Your task to perform on an android device: open app "Yahoo Mail" Image 0: 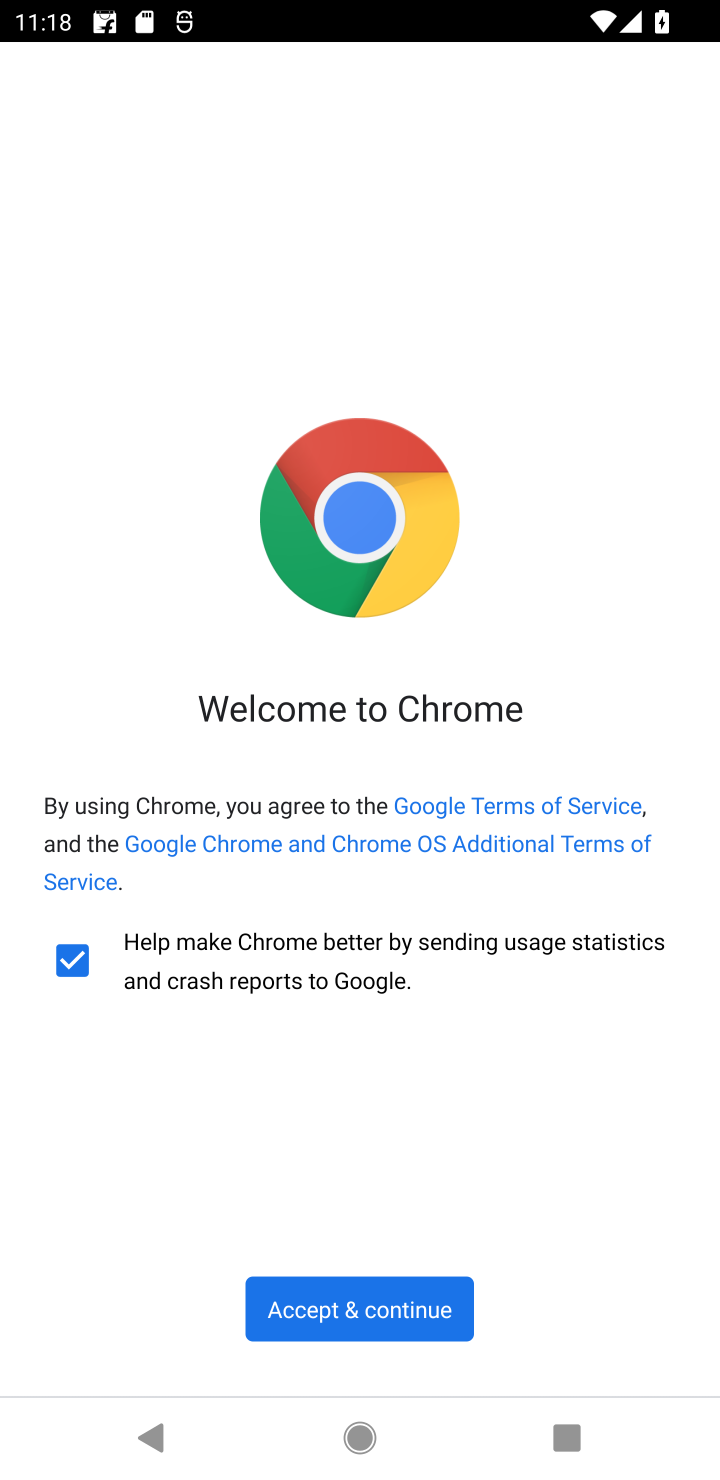
Step 0: press home button
Your task to perform on an android device: open app "Yahoo Mail" Image 1: 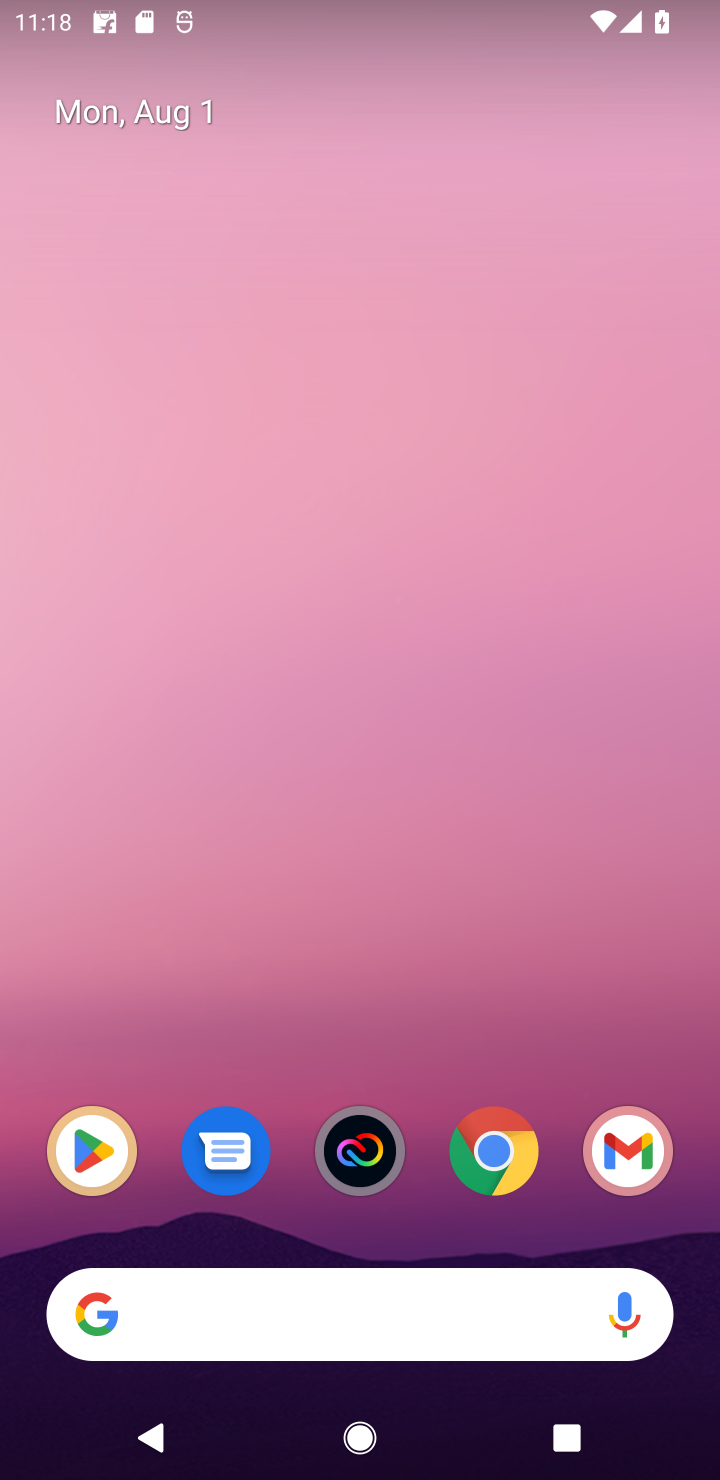
Step 1: click (67, 1128)
Your task to perform on an android device: open app "Yahoo Mail" Image 2: 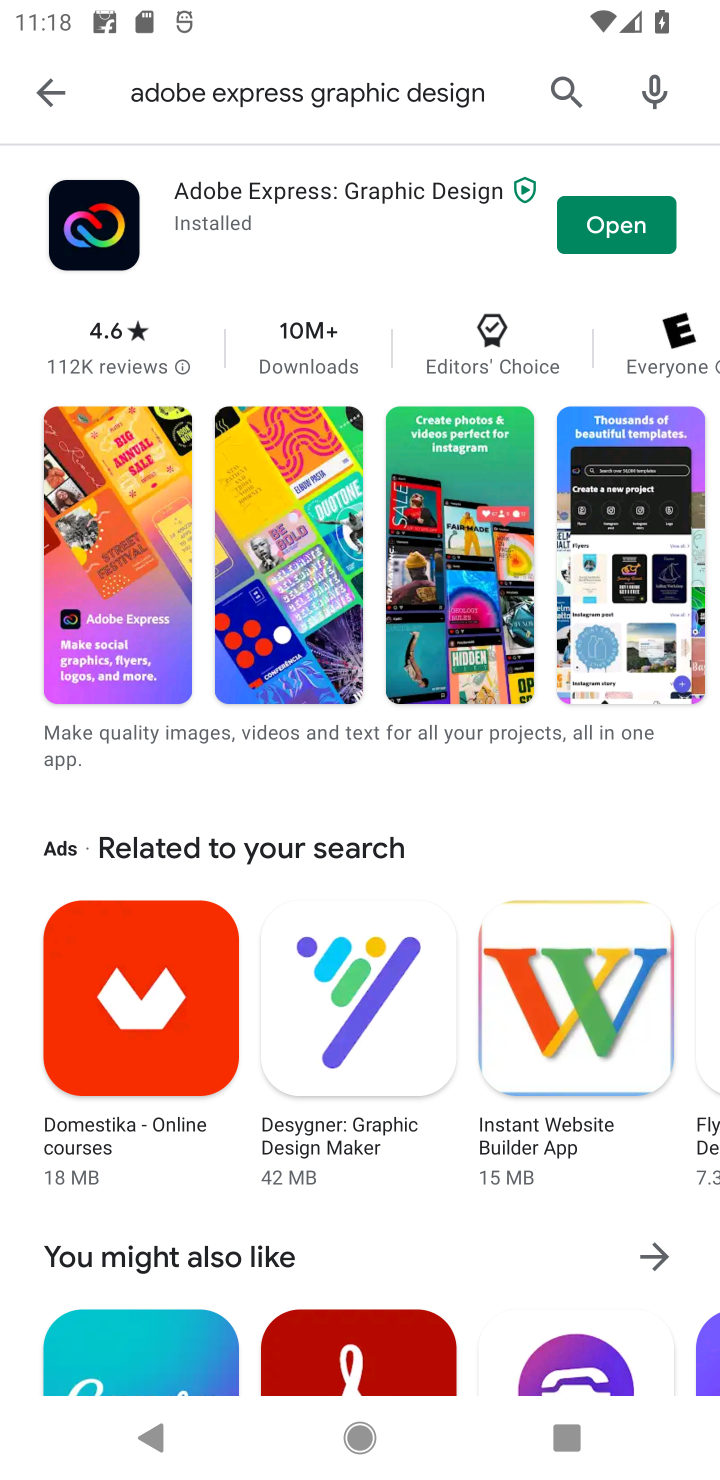
Step 2: click (573, 84)
Your task to perform on an android device: open app "Yahoo Mail" Image 3: 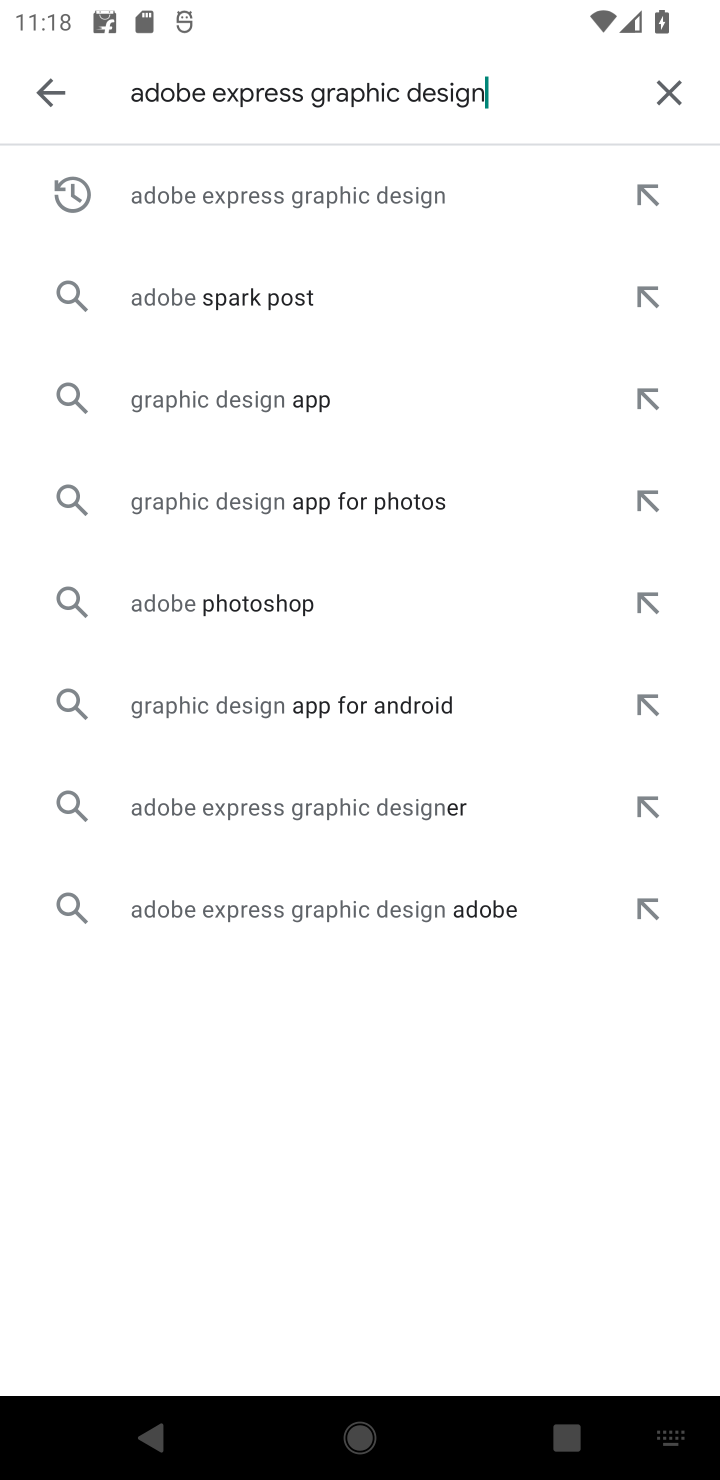
Step 3: click (661, 85)
Your task to perform on an android device: open app "Yahoo Mail" Image 4: 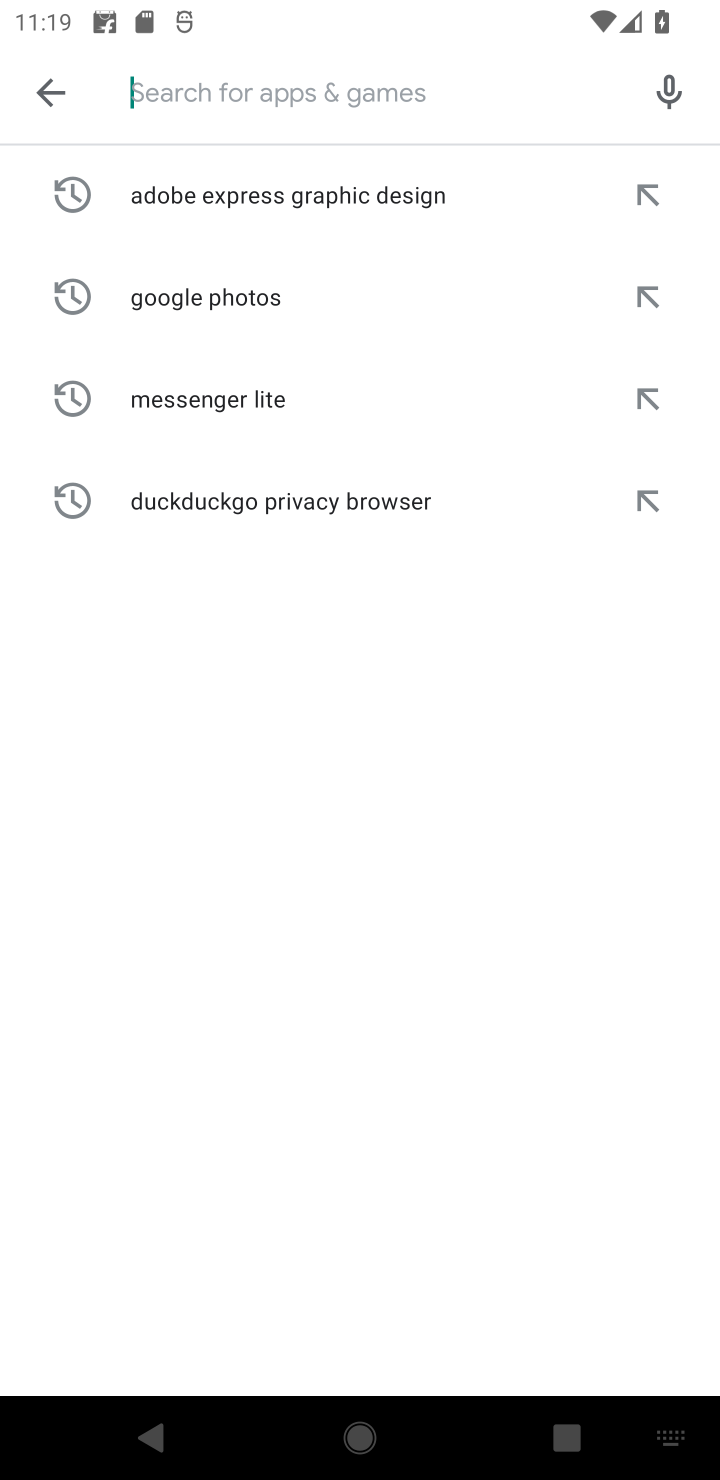
Step 4: type "Yahoo Mail"
Your task to perform on an android device: open app "Yahoo Mail" Image 5: 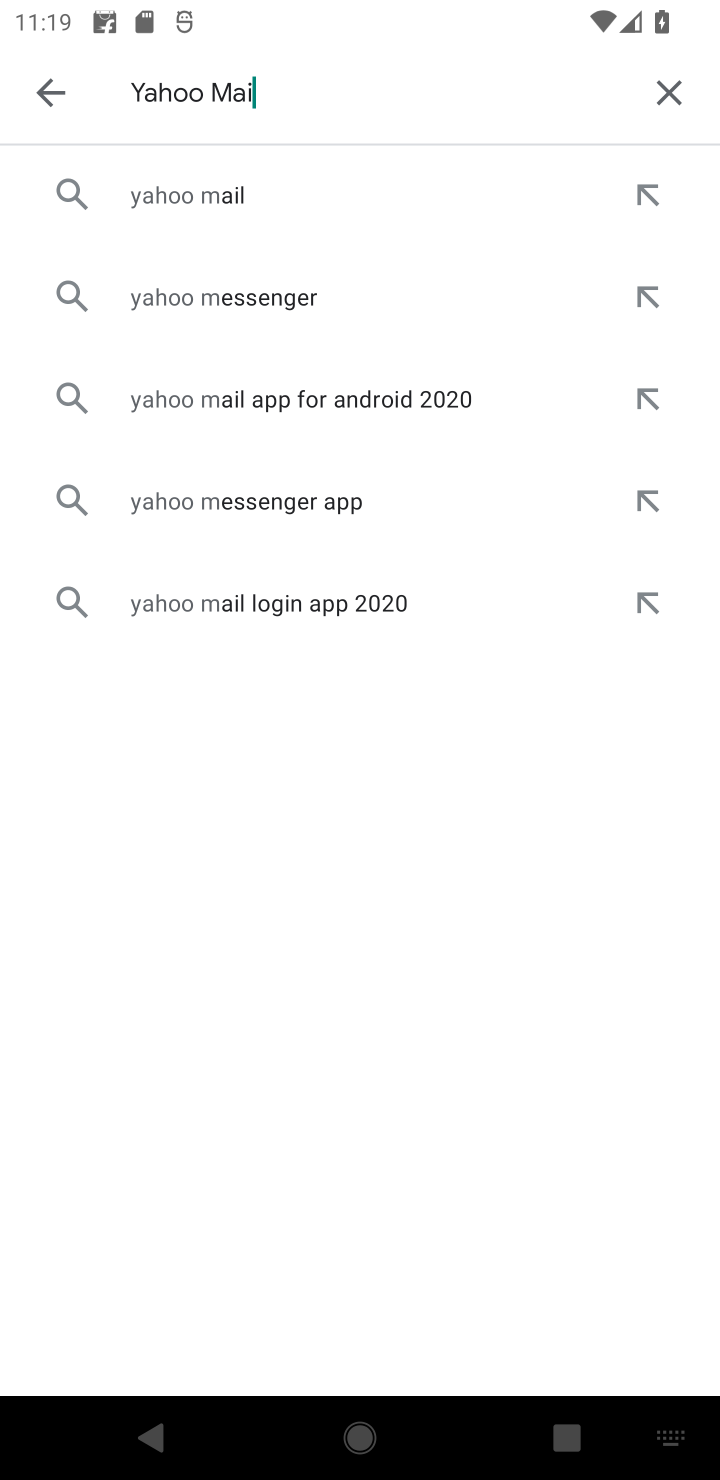
Step 5: type ""
Your task to perform on an android device: open app "Yahoo Mail" Image 6: 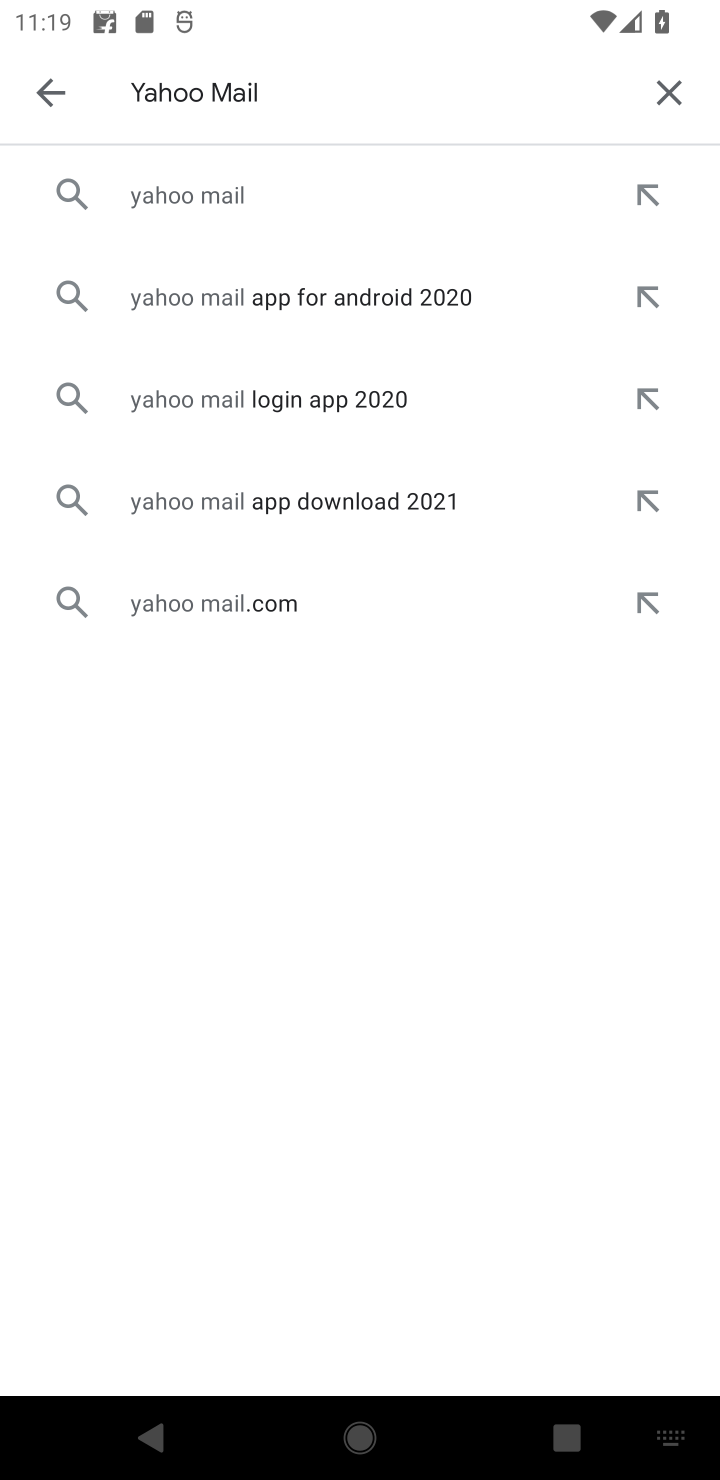
Step 6: click (249, 198)
Your task to perform on an android device: open app "Yahoo Mail" Image 7: 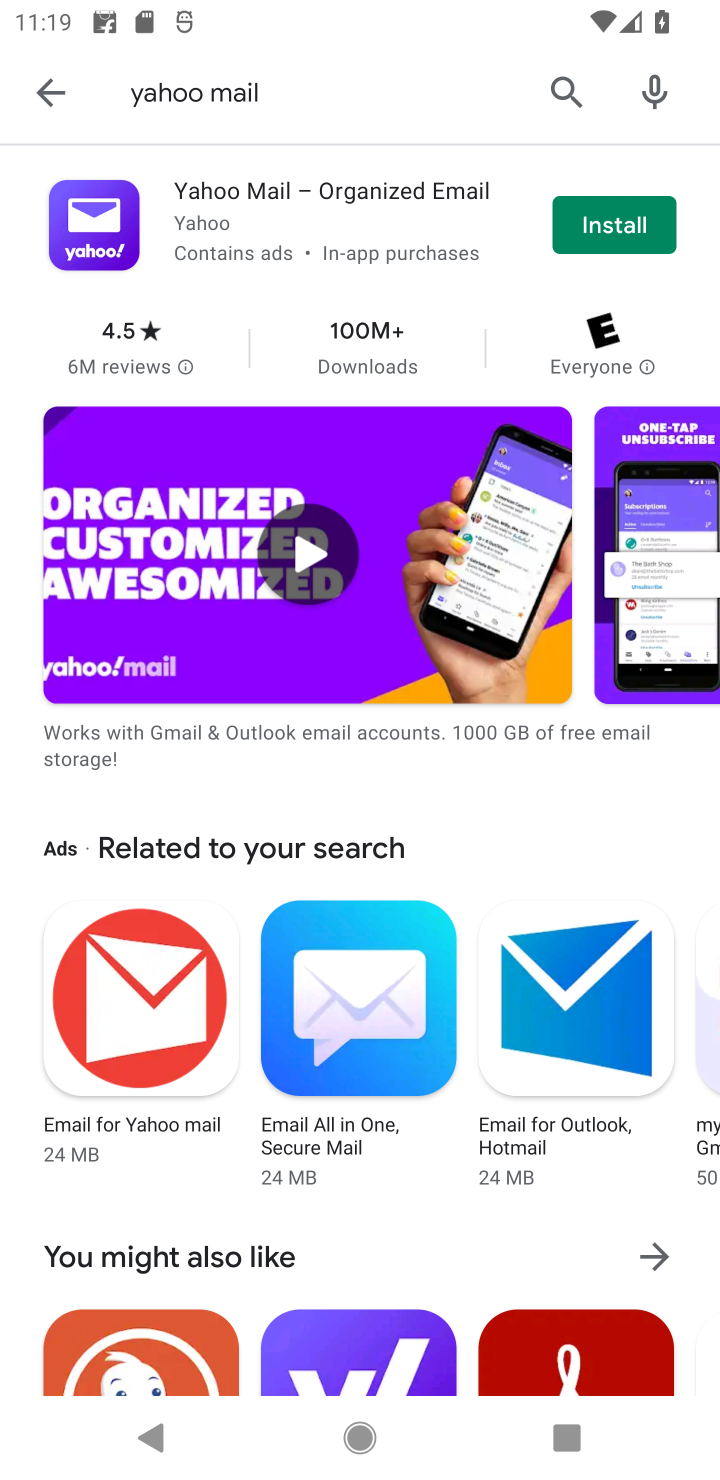
Step 7: task complete